Your task to perform on an android device: Go to location settings Image 0: 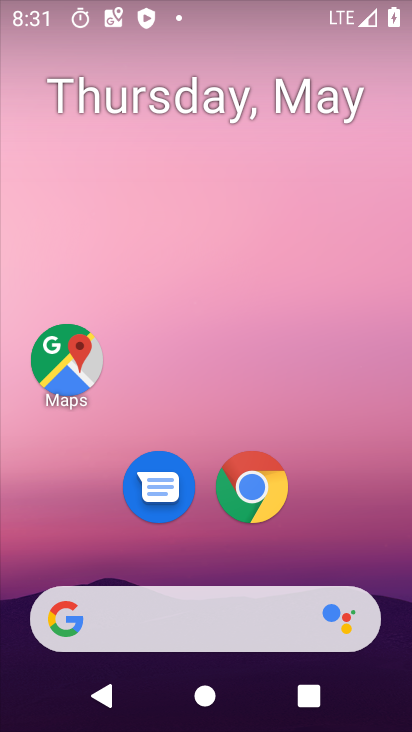
Step 0: drag from (186, 577) to (243, 77)
Your task to perform on an android device: Go to location settings Image 1: 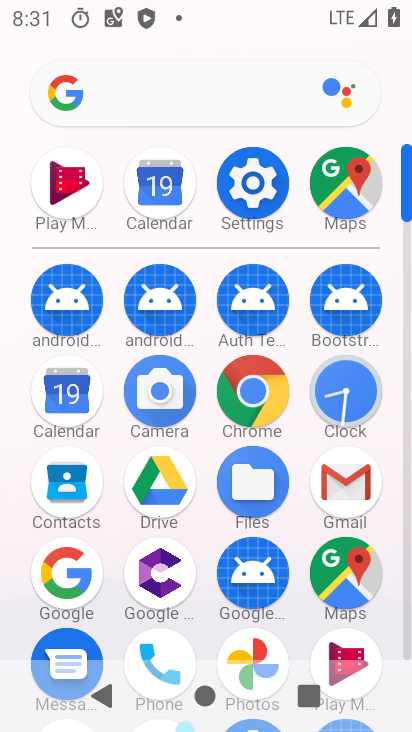
Step 1: click (266, 180)
Your task to perform on an android device: Go to location settings Image 2: 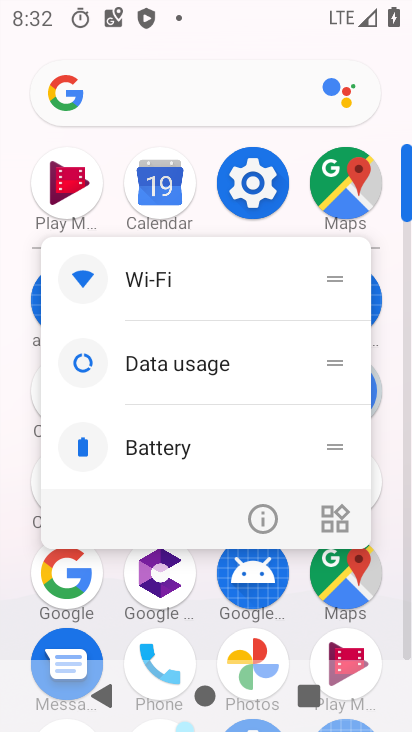
Step 2: click (258, 520)
Your task to perform on an android device: Go to location settings Image 3: 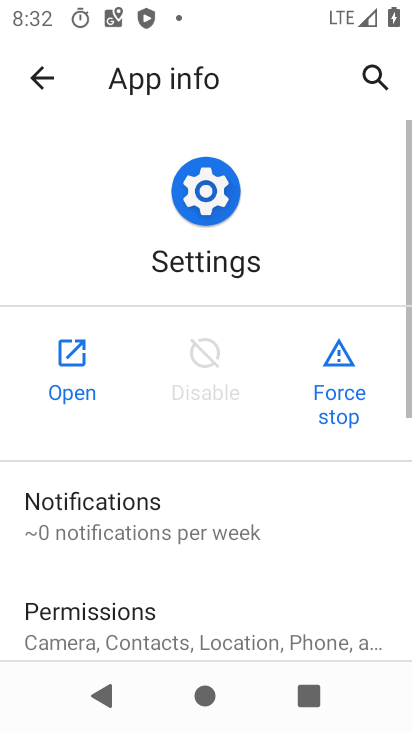
Step 3: click (61, 356)
Your task to perform on an android device: Go to location settings Image 4: 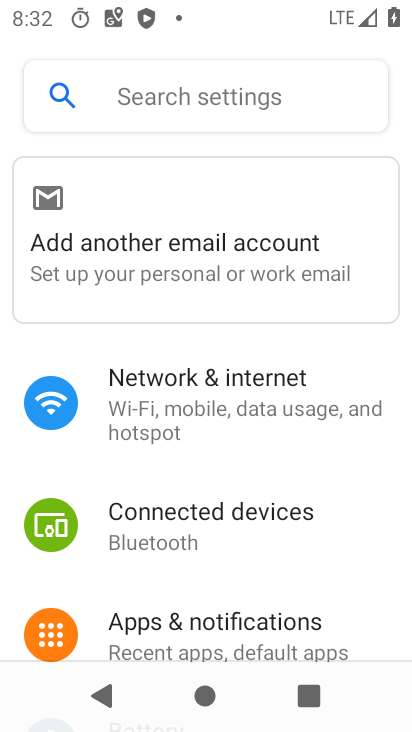
Step 4: drag from (223, 616) to (410, 120)
Your task to perform on an android device: Go to location settings Image 5: 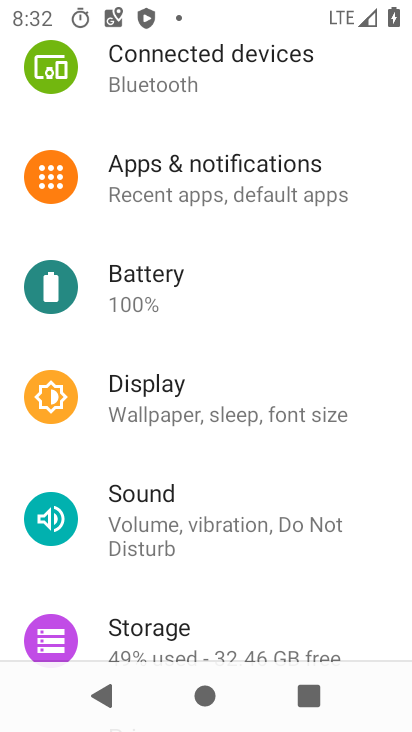
Step 5: drag from (202, 593) to (339, 87)
Your task to perform on an android device: Go to location settings Image 6: 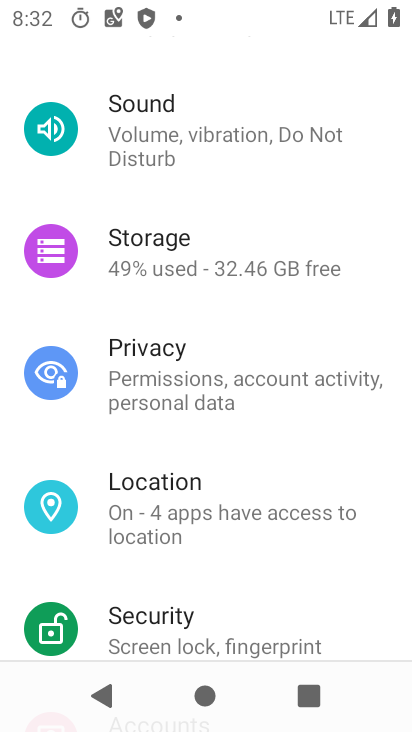
Step 6: drag from (191, 383) to (302, 48)
Your task to perform on an android device: Go to location settings Image 7: 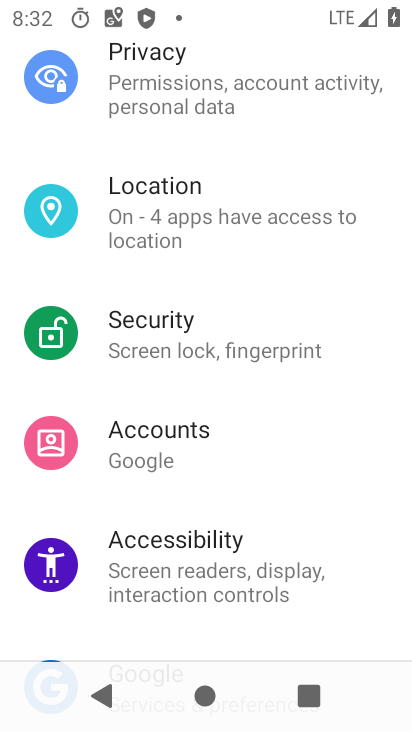
Step 7: click (168, 215)
Your task to perform on an android device: Go to location settings Image 8: 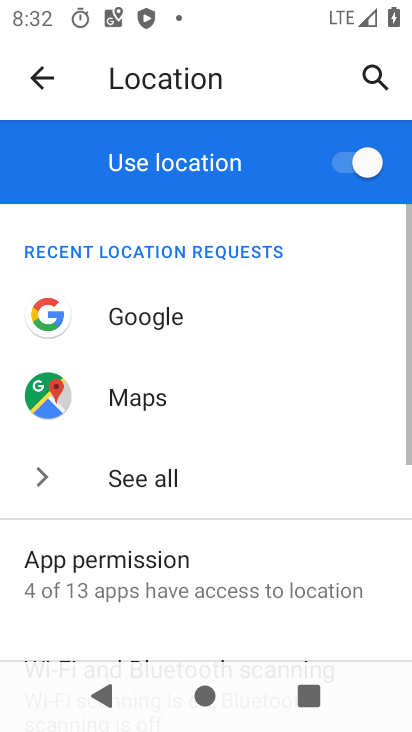
Step 8: drag from (149, 581) to (310, 98)
Your task to perform on an android device: Go to location settings Image 9: 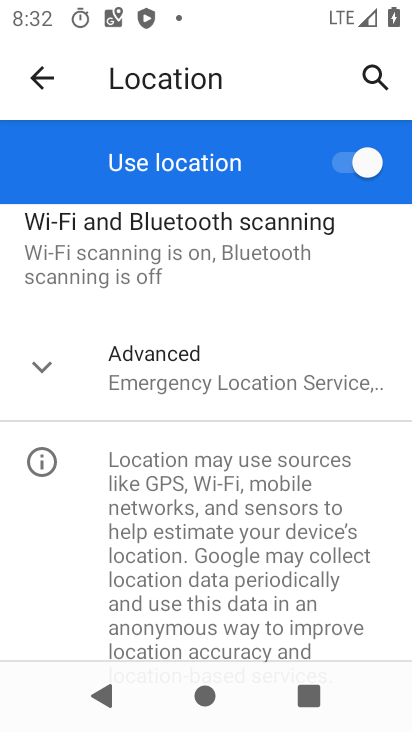
Step 9: drag from (258, 528) to (246, 303)
Your task to perform on an android device: Go to location settings Image 10: 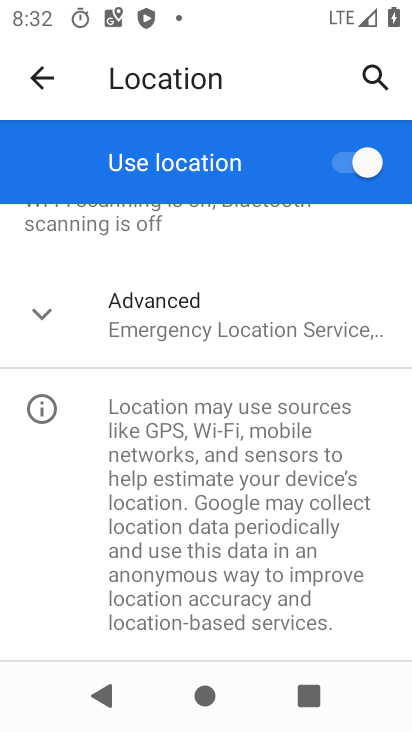
Step 10: click (215, 314)
Your task to perform on an android device: Go to location settings Image 11: 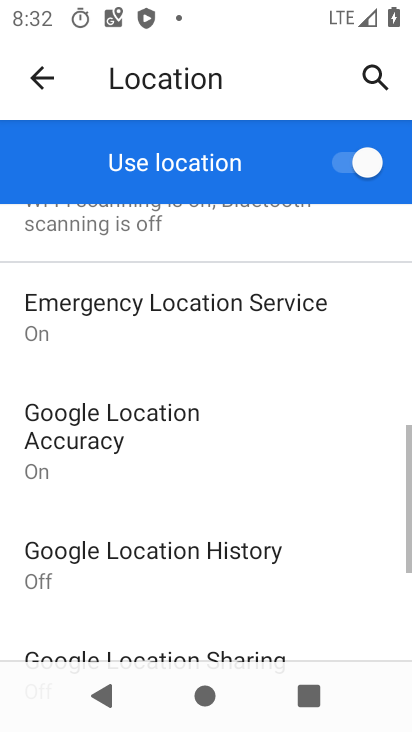
Step 11: task complete